Your task to perform on an android device: Go to privacy settings Image 0: 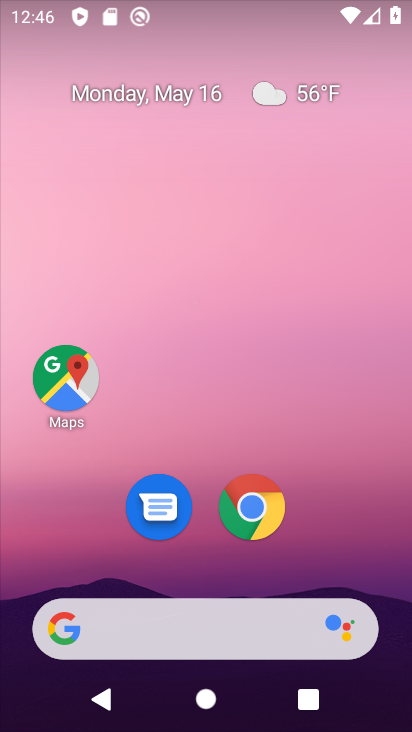
Step 0: drag from (214, 567) to (189, 225)
Your task to perform on an android device: Go to privacy settings Image 1: 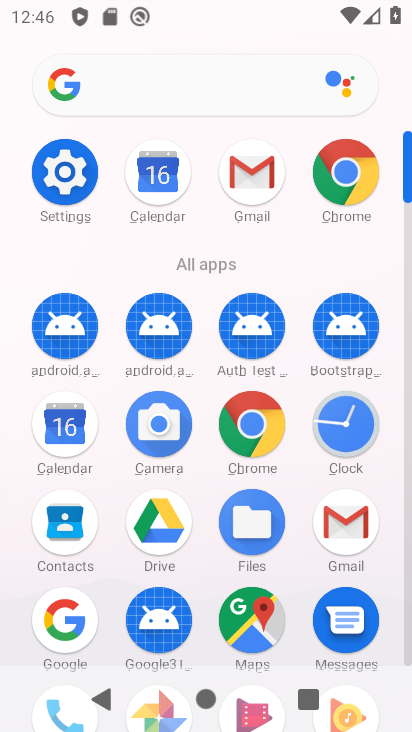
Step 1: click (82, 175)
Your task to perform on an android device: Go to privacy settings Image 2: 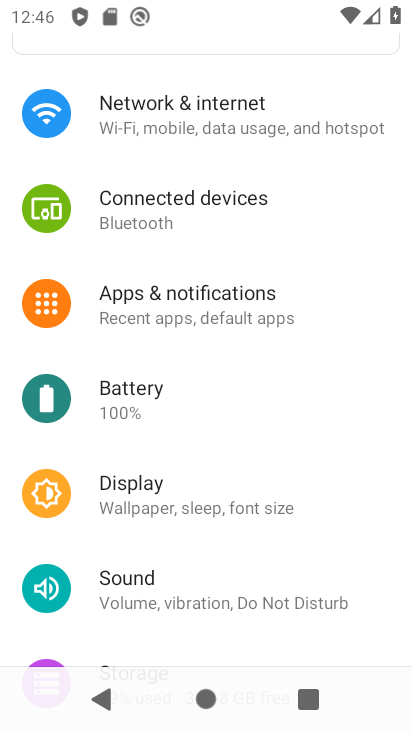
Step 2: drag from (167, 544) to (178, 333)
Your task to perform on an android device: Go to privacy settings Image 3: 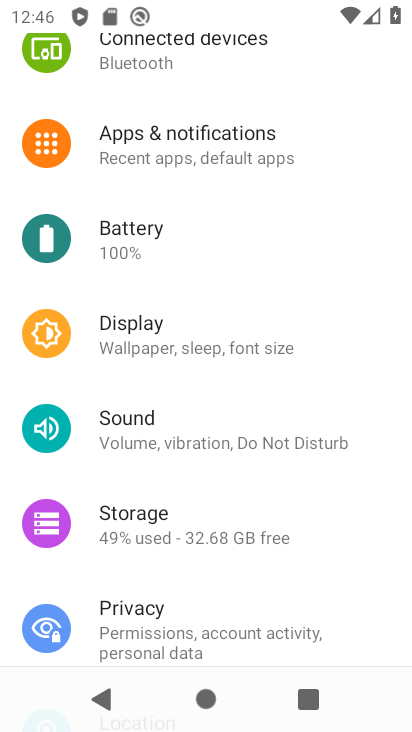
Step 3: click (196, 622)
Your task to perform on an android device: Go to privacy settings Image 4: 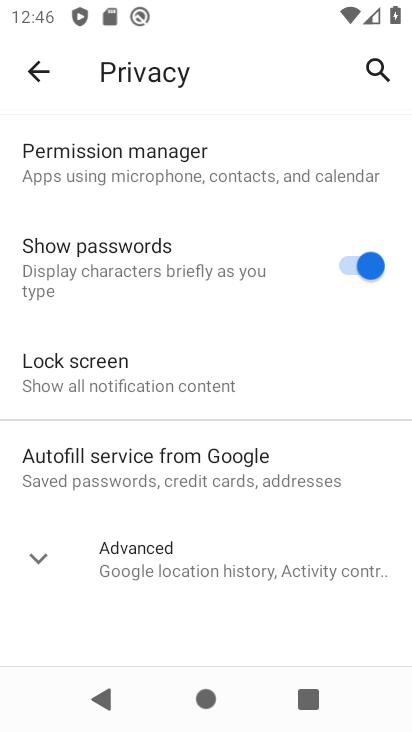
Step 4: task complete